Your task to perform on an android device: change the clock style Image 0: 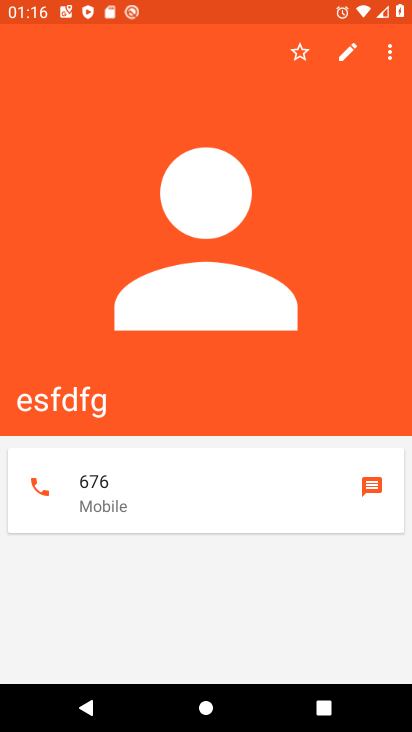
Step 0: press home button
Your task to perform on an android device: change the clock style Image 1: 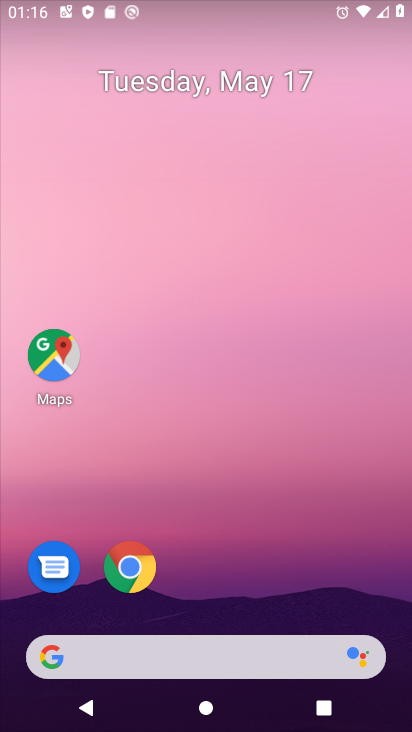
Step 1: drag from (330, 415) to (252, 67)
Your task to perform on an android device: change the clock style Image 2: 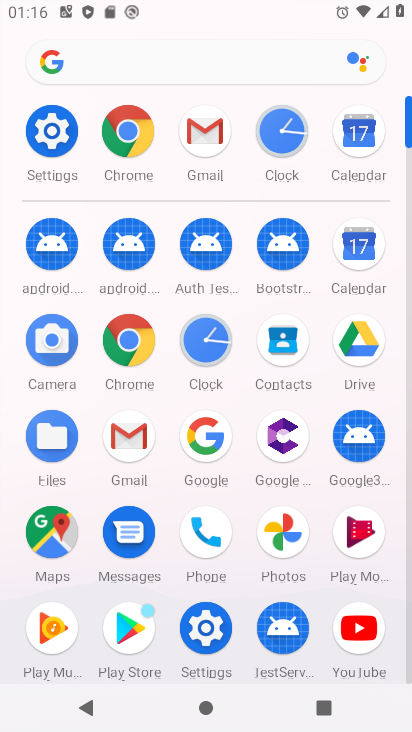
Step 2: click (269, 127)
Your task to perform on an android device: change the clock style Image 3: 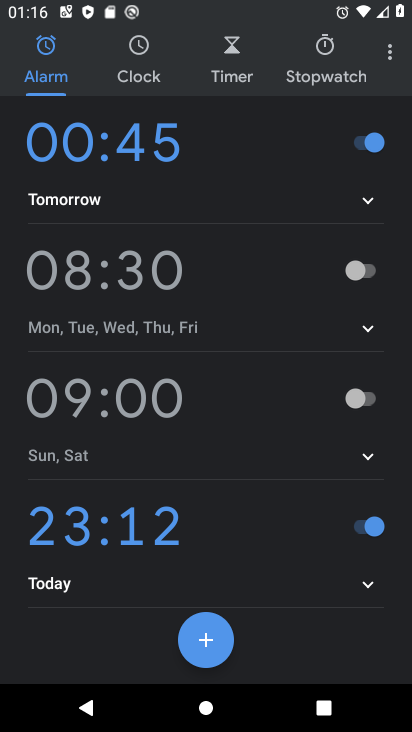
Step 3: click (386, 50)
Your task to perform on an android device: change the clock style Image 4: 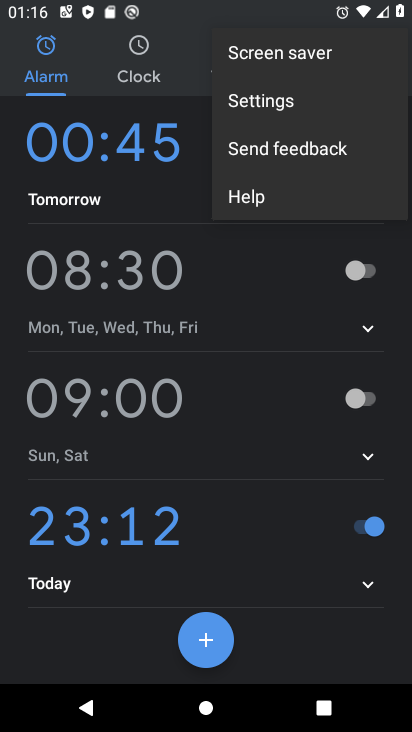
Step 4: click (274, 101)
Your task to perform on an android device: change the clock style Image 5: 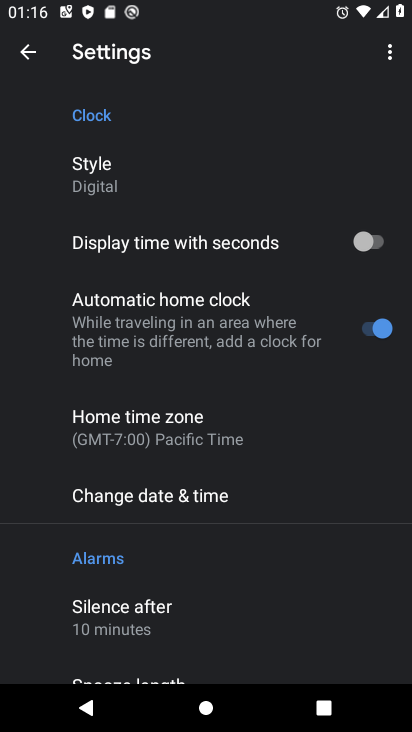
Step 5: click (91, 166)
Your task to perform on an android device: change the clock style Image 6: 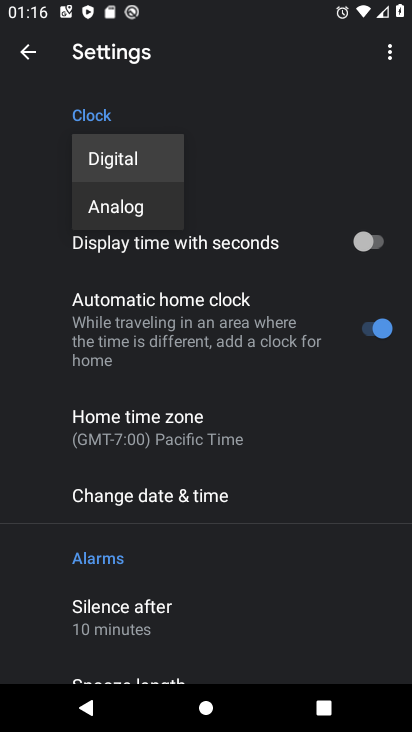
Step 6: click (126, 196)
Your task to perform on an android device: change the clock style Image 7: 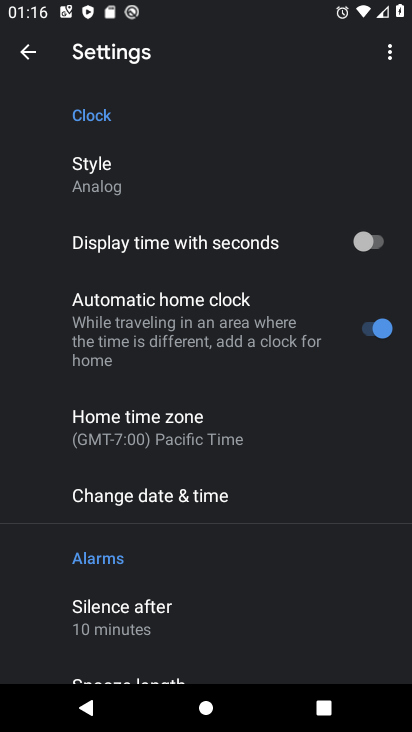
Step 7: task complete